Your task to perform on an android device: turn on sleep mode Image 0: 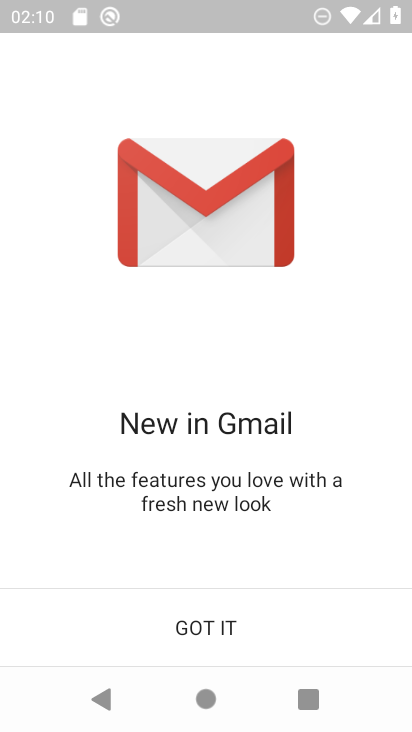
Step 0: press home button
Your task to perform on an android device: turn on sleep mode Image 1: 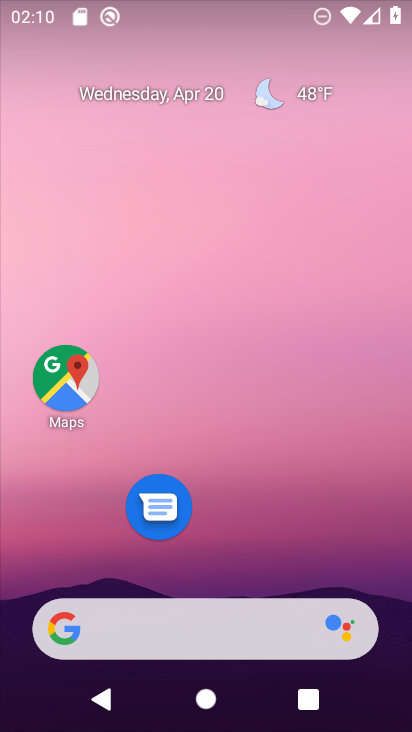
Step 1: drag from (205, 720) to (178, 343)
Your task to perform on an android device: turn on sleep mode Image 2: 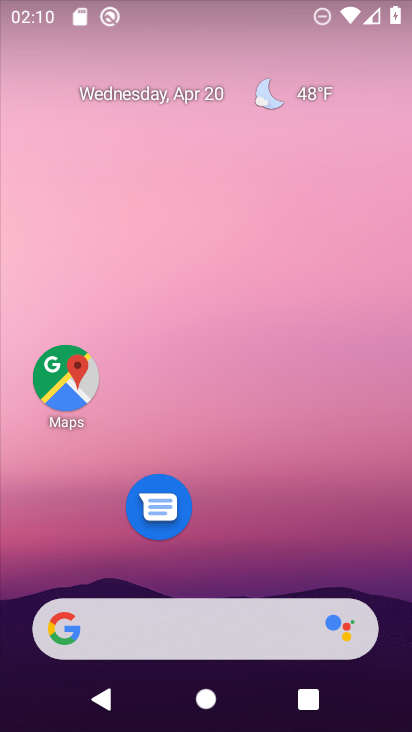
Step 2: drag from (203, 723) to (189, 130)
Your task to perform on an android device: turn on sleep mode Image 3: 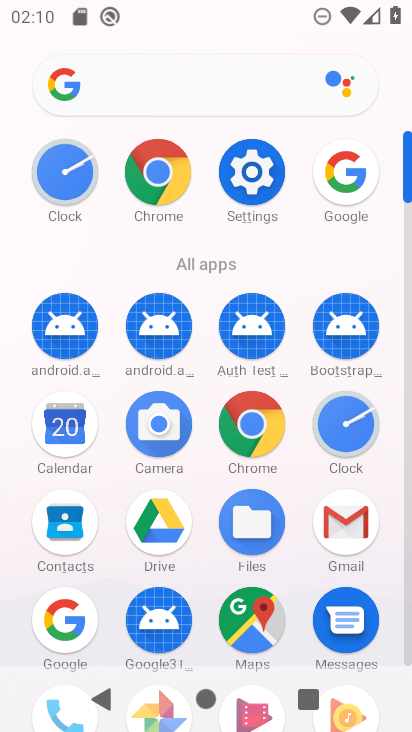
Step 3: click (250, 172)
Your task to perform on an android device: turn on sleep mode Image 4: 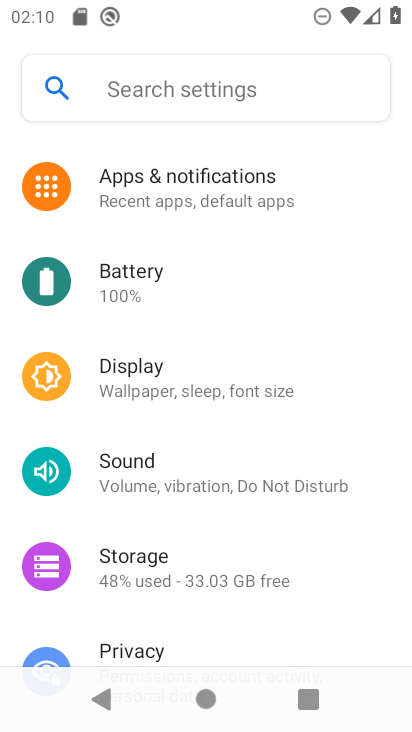
Step 4: drag from (212, 641) to (188, 210)
Your task to perform on an android device: turn on sleep mode Image 5: 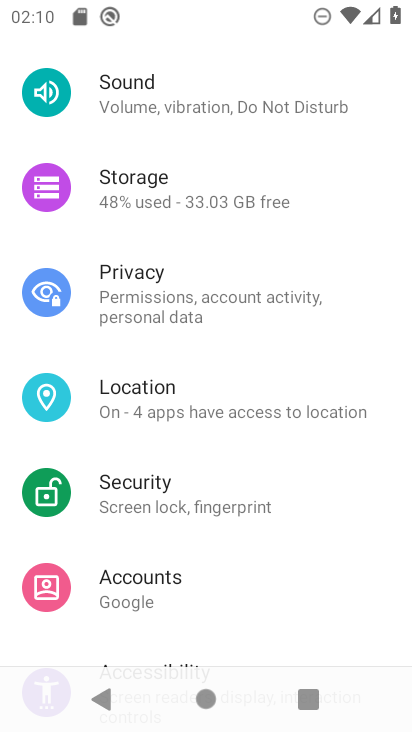
Step 5: drag from (217, 619) to (206, 208)
Your task to perform on an android device: turn on sleep mode Image 6: 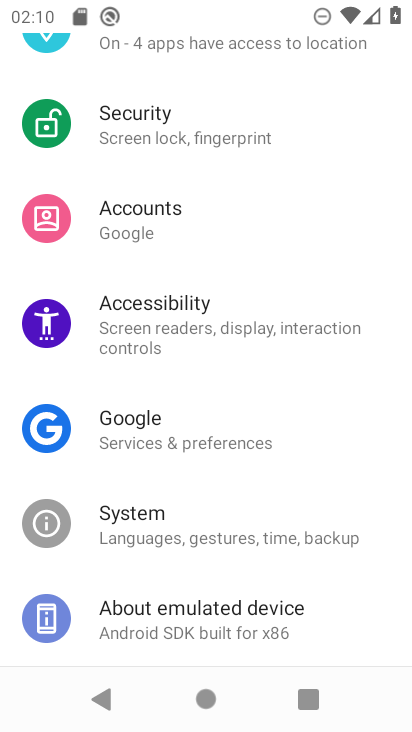
Step 6: drag from (221, 150) to (223, 540)
Your task to perform on an android device: turn on sleep mode Image 7: 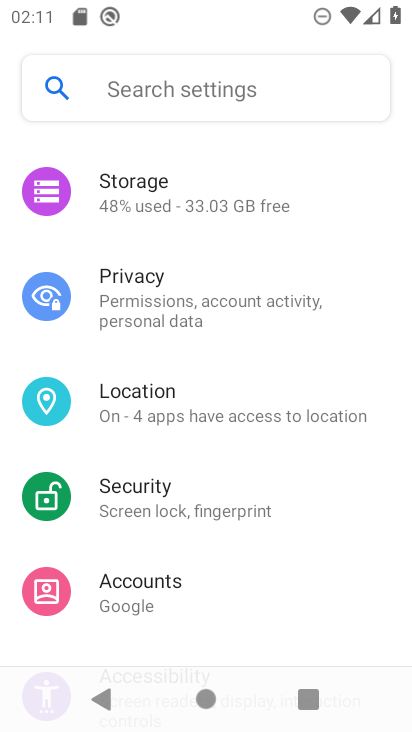
Step 7: drag from (205, 164) to (232, 514)
Your task to perform on an android device: turn on sleep mode Image 8: 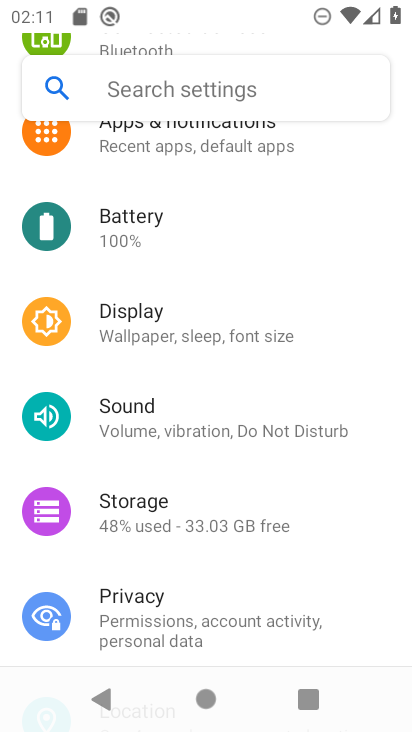
Step 8: click (165, 329)
Your task to perform on an android device: turn on sleep mode Image 9: 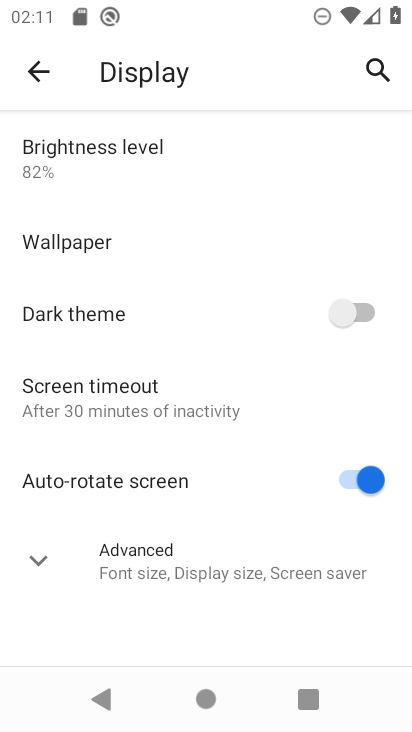
Step 9: task complete